Your task to perform on an android device: Open battery settings Image 0: 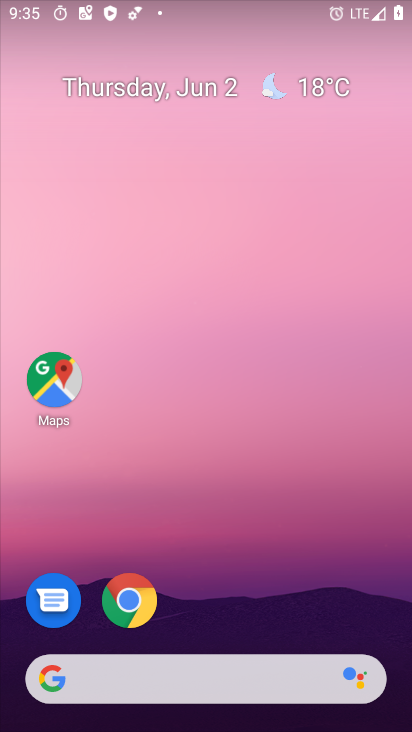
Step 0: drag from (373, 615) to (374, 263)
Your task to perform on an android device: Open battery settings Image 1: 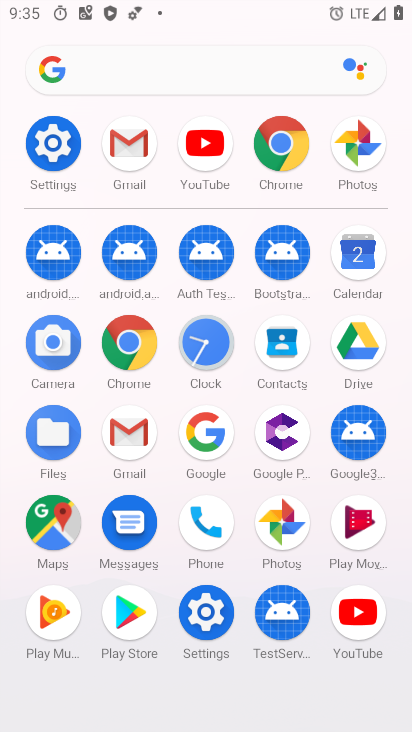
Step 1: click (225, 609)
Your task to perform on an android device: Open battery settings Image 2: 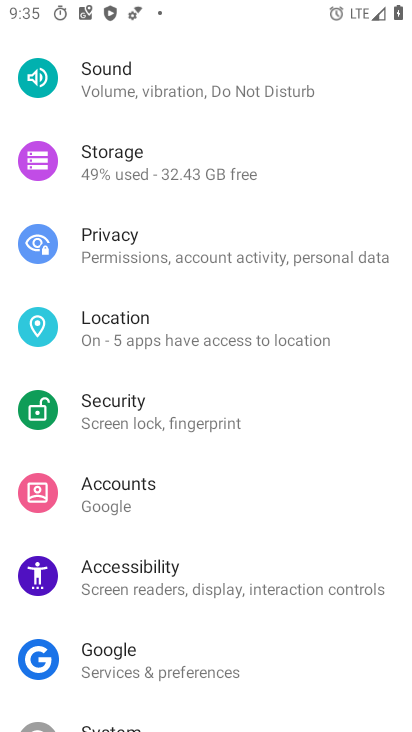
Step 2: drag from (336, 638) to (357, 511)
Your task to perform on an android device: Open battery settings Image 3: 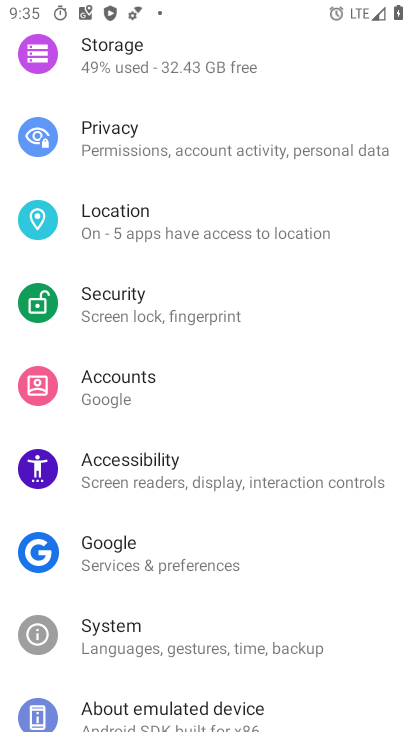
Step 3: drag from (346, 640) to (354, 502)
Your task to perform on an android device: Open battery settings Image 4: 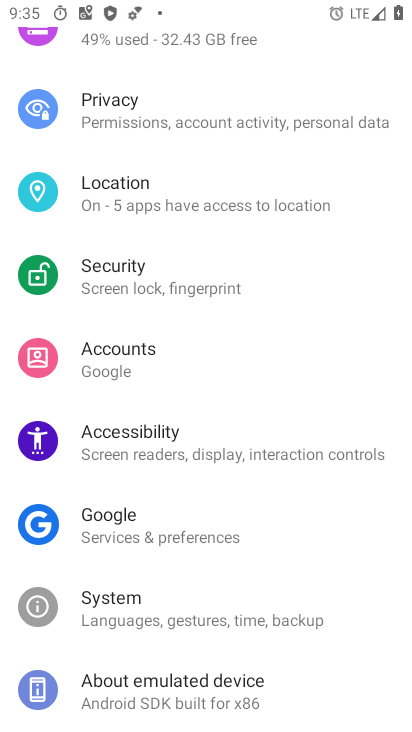
Step 4: drag from (363, 335) to (359, 429)
Your task to perform on an android device: Open battery settings Image 5: 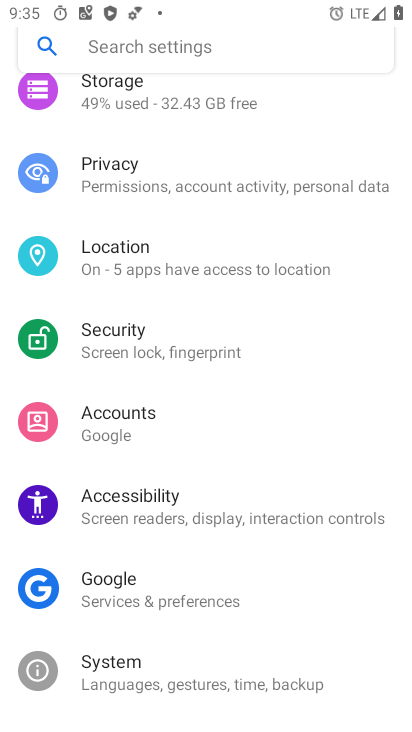
Step 5: drag from (334, 373) to (333, 463)
Your task to perform on an android device: Open battery settings Image 6: 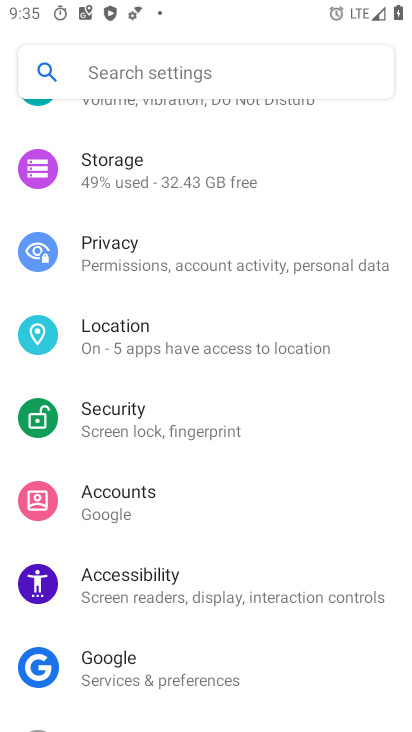
Step 6: drag from (348, 329) to (355, 448)
Your task to perform on an android device: Open battery settings Image 7: 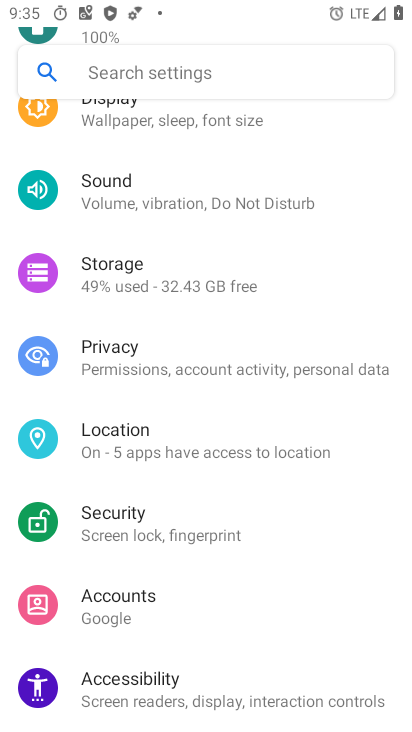
Step 7: drag from (354, 303) to (357, 411)
Your task to perform on an android device: Open battery settings Image 8: 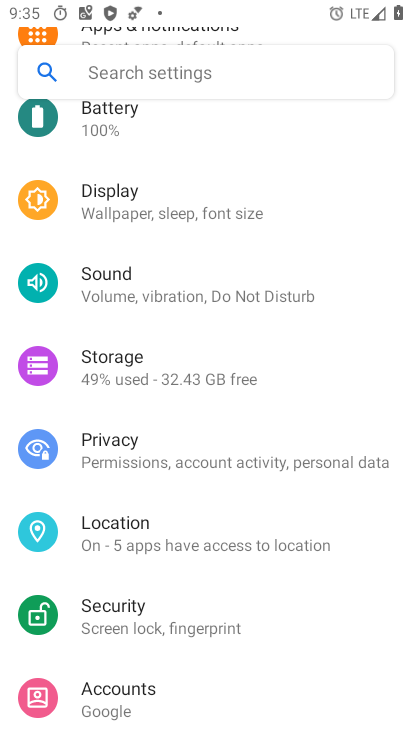
Step 8: drag from (352, 280) to (363, 421)
Your task to perform on an android device: Open battery settings Image 9: 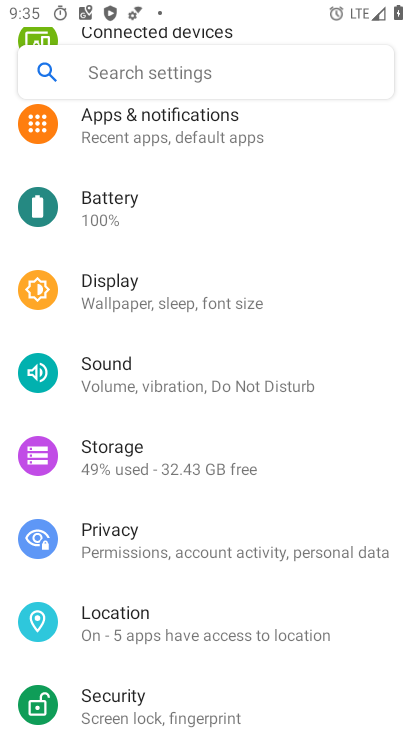
Step 9: drag from (348, 285) to (349, 441)
Your task to perform on an android device: Open battery settings Image 10: 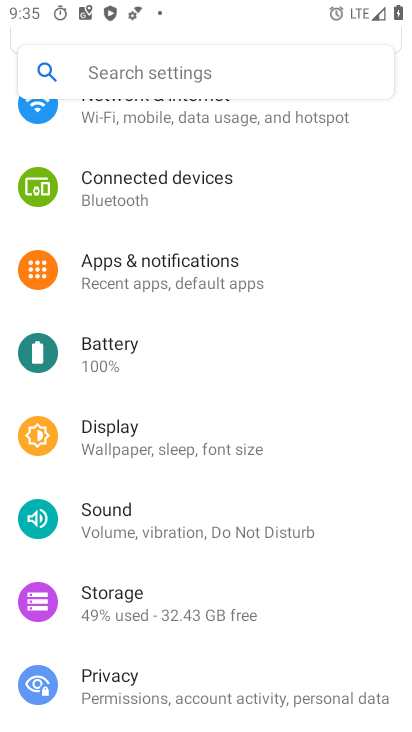
Step 10: drag from (331, 308) to (339, 493)
Your task to perform on an android device: Open battery settings Image 11: 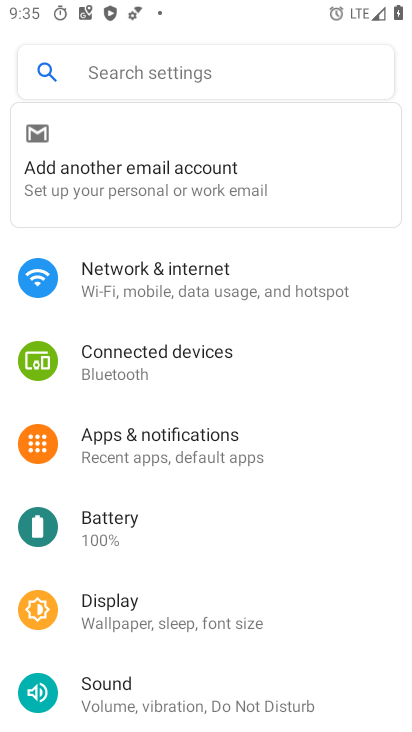
Step 11: click (133, 547)
Your task to perform on an android device: Open battery settings Image 12: 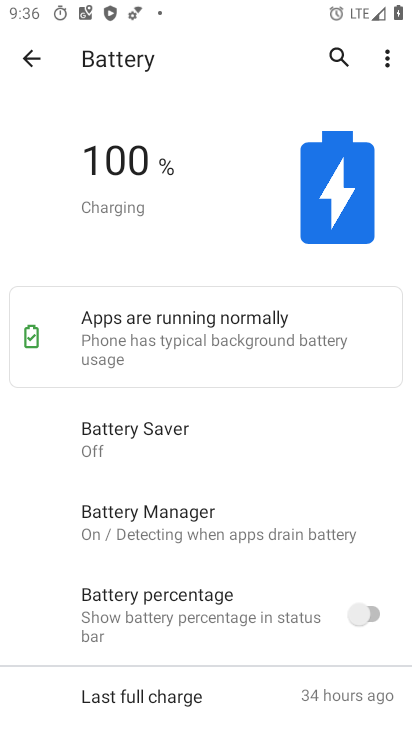
Step 12: task complete